Your task to perform on an android device: Go to accessibility settings Image 0: 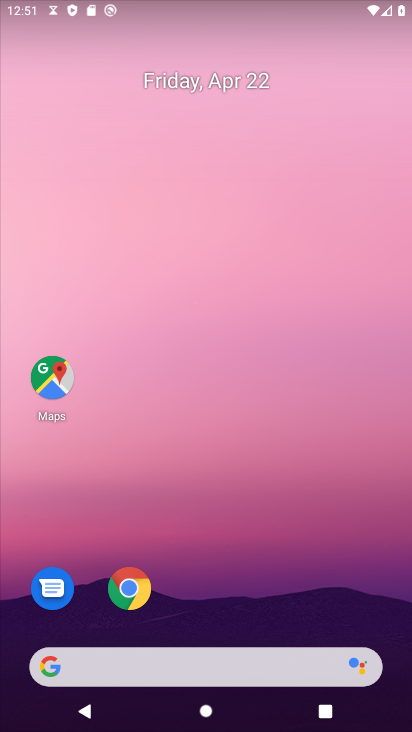
Step 0: drag from (239, 461) to (286, 209)
Your task to perform on an android device: Go to accessibility settings Image 1: 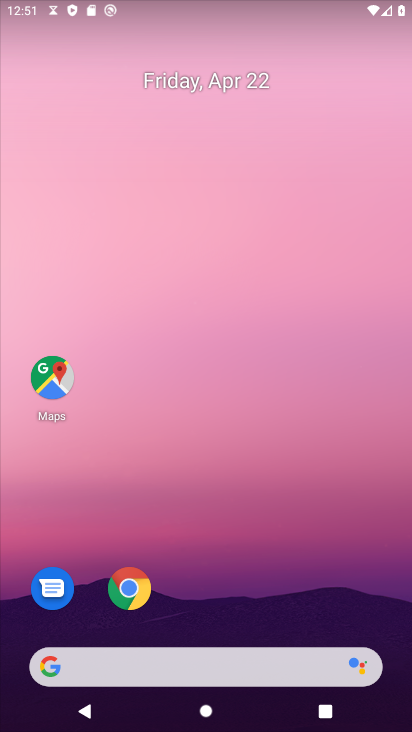
Step 1: drag from (295, 690) to (341, 182)
Your task to perform on an android device: Go to accessibility settings Image 2: 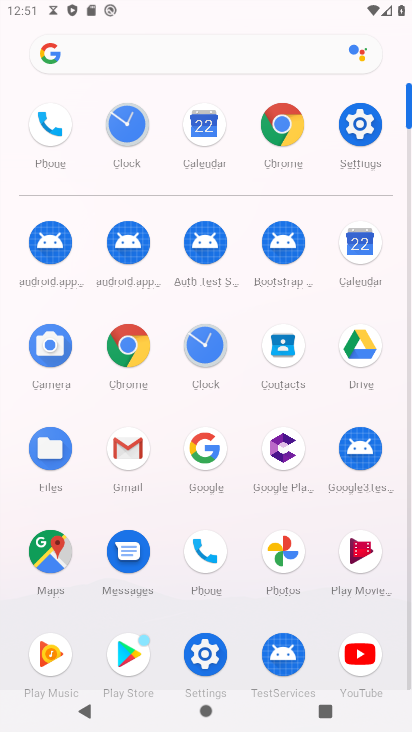
Step 2: click (361, 132)
Your task to perform on an android device: Go to accessibility settings Image 3: 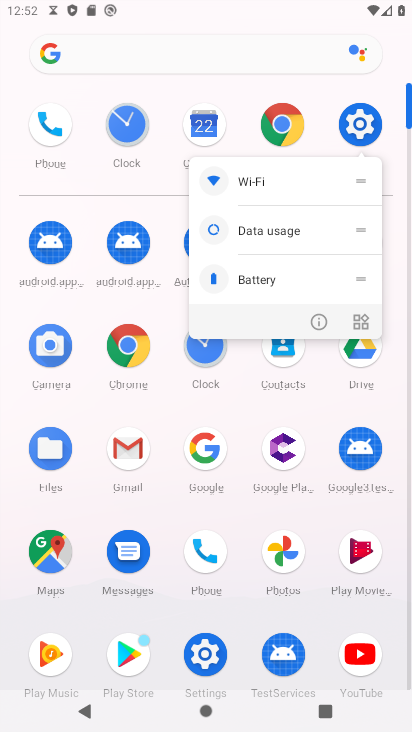
Step 3: click (361, 132)
Your task to perform on an android device: Go to accessibility settings Image 4: 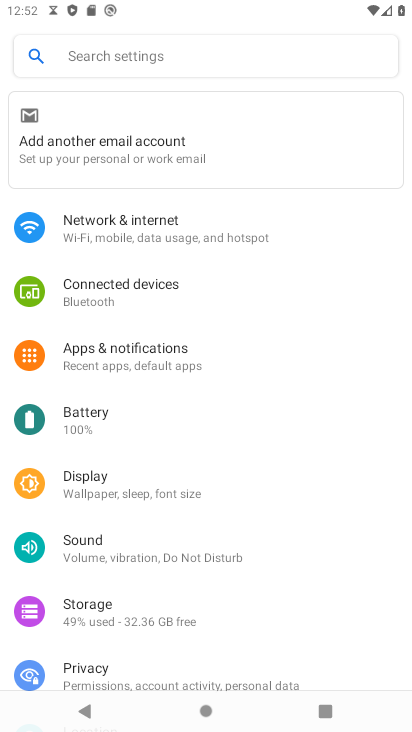
Step 4: click (199, 56)
Your task to perform on an android device: Go to accessibility settings Image 5: 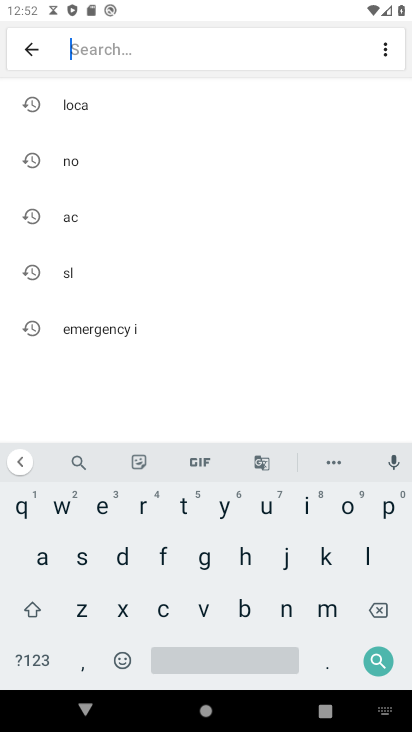
Step 5: drag from (108, 201) to (50, 452)
Your task to perform on an android device: Go to accessibility settings Image 6: 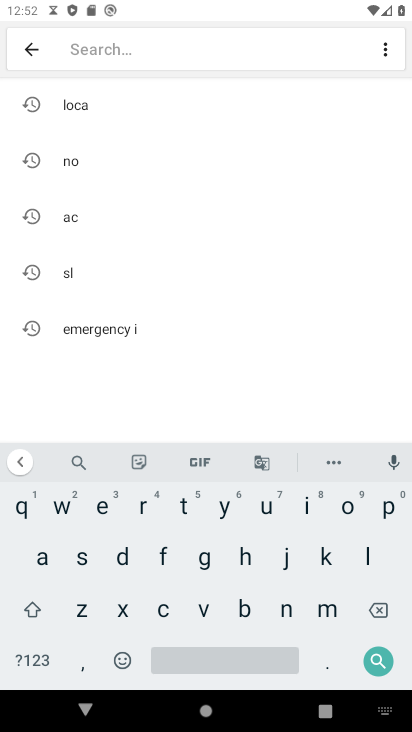
Step 6: click (109, 217)
Your task to perform on an android device: Go to accessibility settings Image 7: 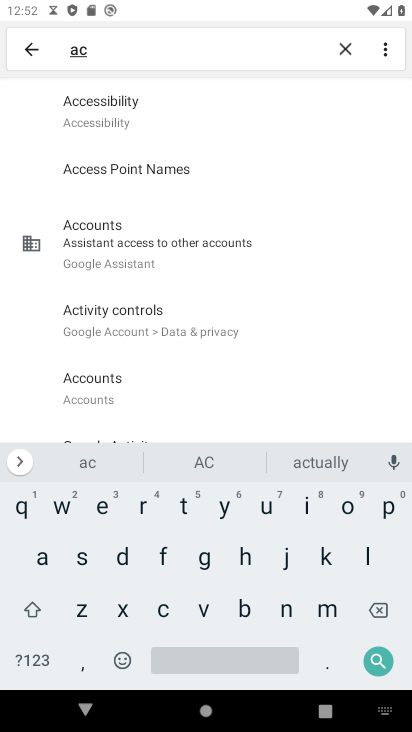
Step 7: click (141, 107)
Your task to perform on an android device: Go to accessibility settings Image 8: 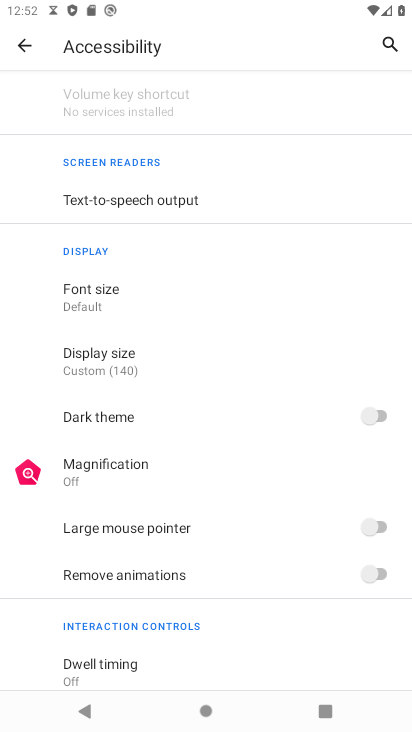
Step 8: task complete